Your task to perform on an android device: turn off data saver in the chrome app Image 0: 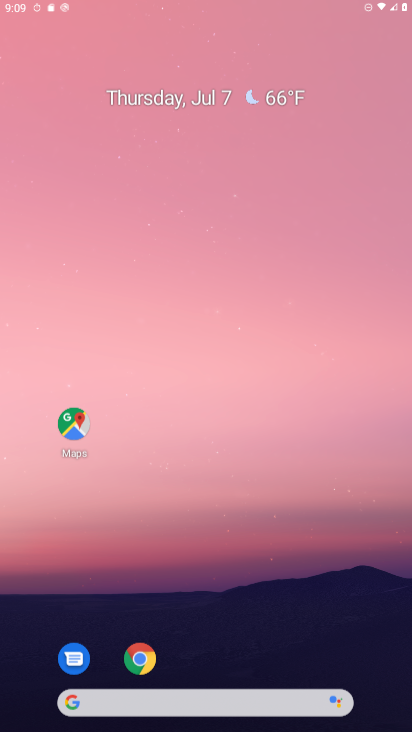
Step 0: drag from (374, 682) to (222, 11)
Your task to perform on an android device: turn off data saver in the chrome app Image 1: 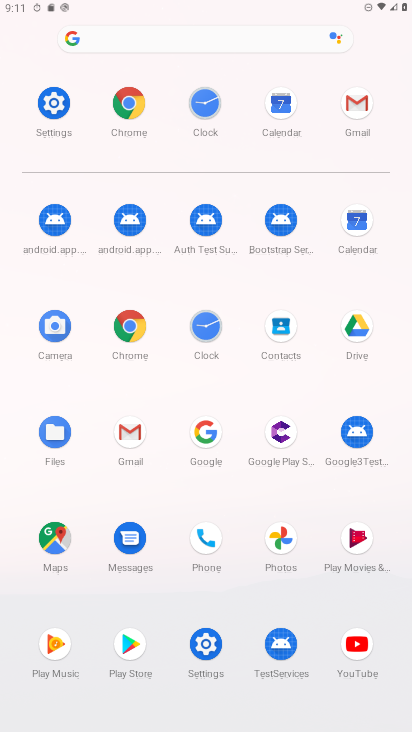
Step 1: click (133, 338)
Your task to perform on an android device: turn off data saver in the chrome app Image 2: 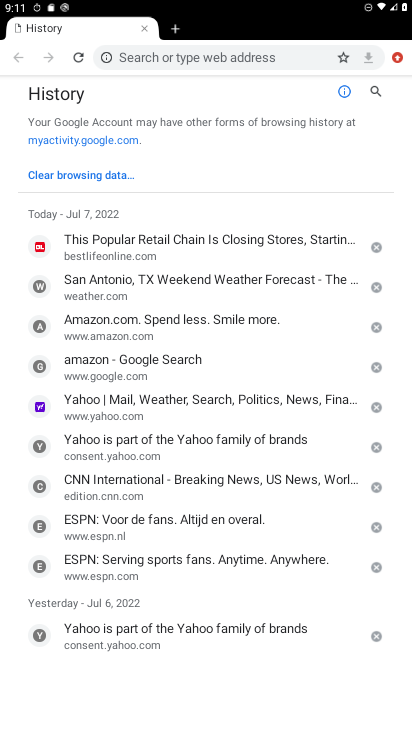
Step 2: press back button
Your task to perform on an android device: turn off data saver in the chrome app Image 3: 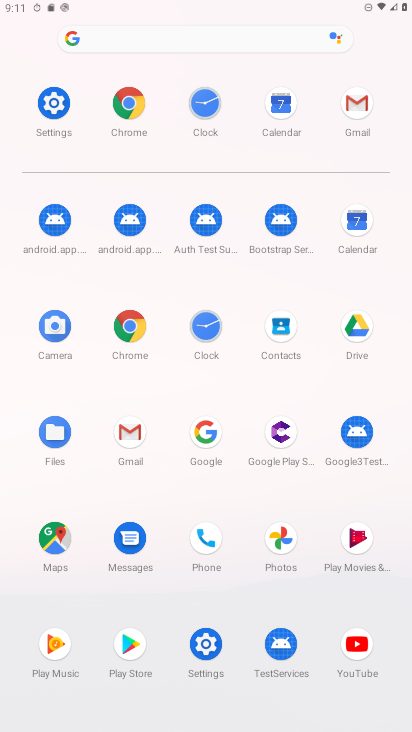
Step 3: click (137, 114)
Your task to perform on an android device: turn off data saver in the chrome app Image 4: 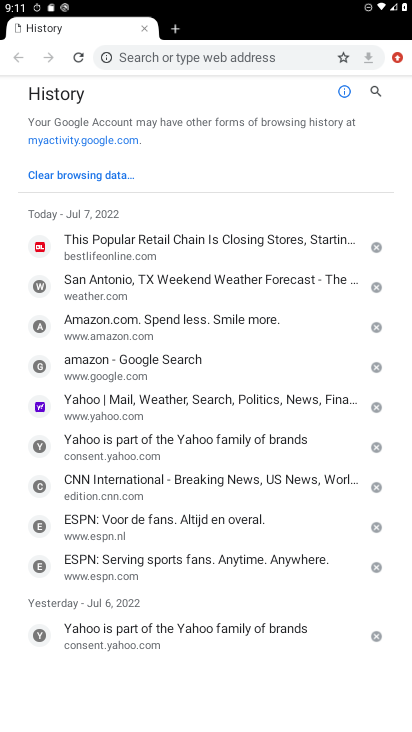
Step 4: click (391, 54)
Your task to perform on an android device: turn off data saver in the chrome app Image 5: 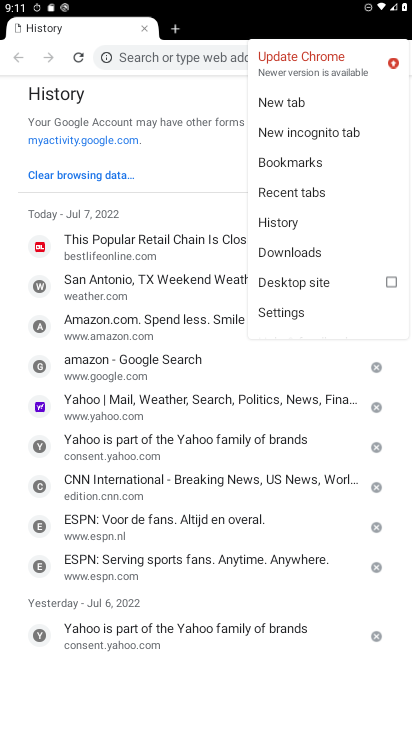
Step 5: click (282, 315)
Your task to perform on an android device: turn off data saver in the chrome app Image 6: 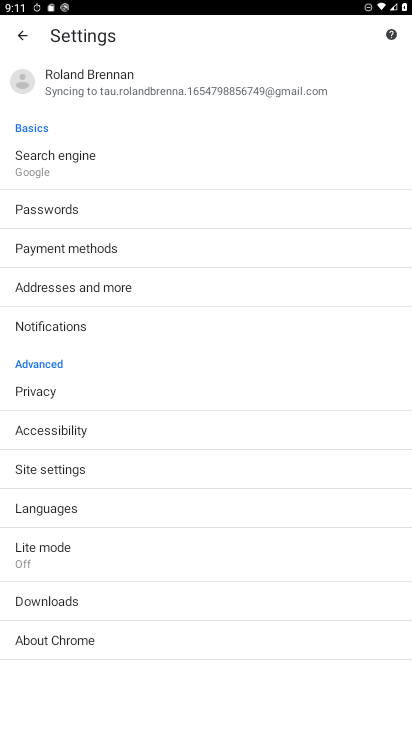
Step 6: click (48, 572)
Your task to perform on an android device: turn off data saver in the chrome app Image 7: 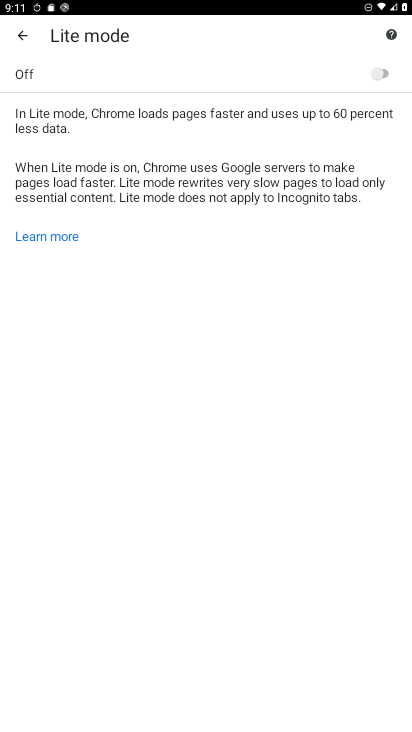
Step 7: task complete